Your task to perform on an android device: Go to Amazon Image 0: 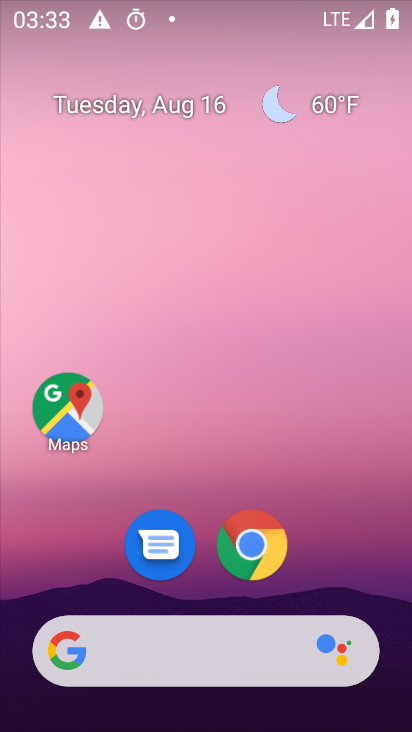
Step 0: drag from (125, 616) to (148, 267)
Your task to perform on an android device: Go to Amazon Image 1: 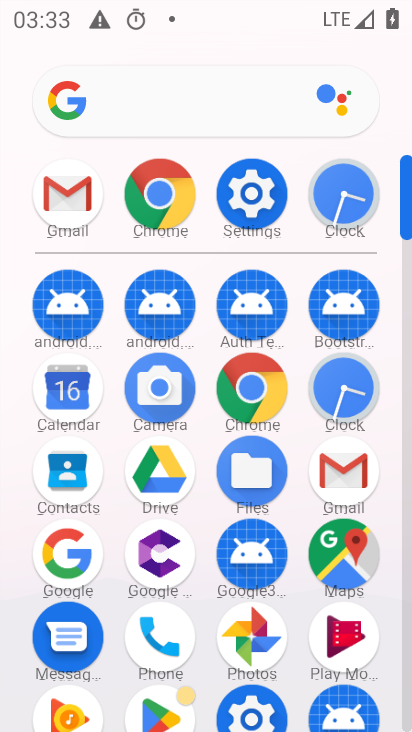
Step 1: click (60, 555)
Your task to perform on an android device: Go to Amazon Image 2: 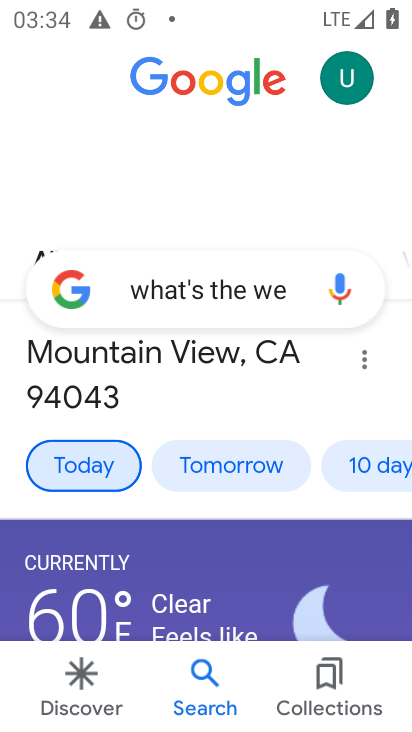
Step 2: click (205, 290)
Your task to perform on an android device: Go to Amazon Image 3: 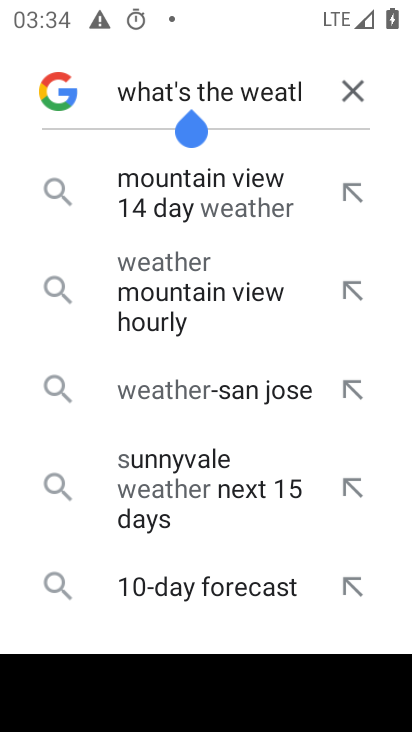
Step 3: click (348, 91)
Your task to perform on an android device: Go to Amazon Image 4: 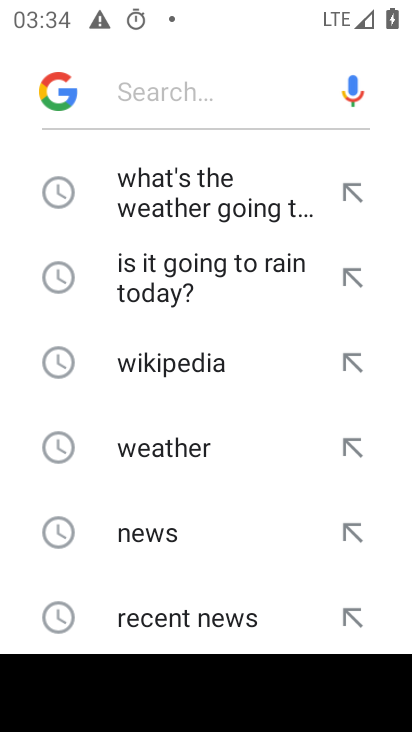
Step 4: drag from (153, 631) to (151, 322)
Your task to perform on an android device: Go to Amazon Image 5: 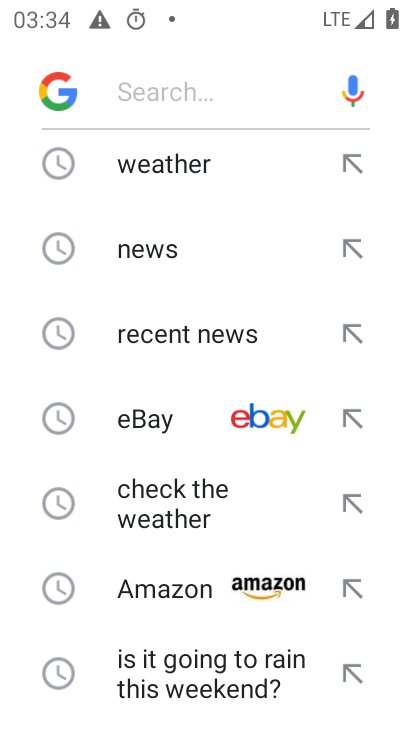
Step 5: click (158, 595)
Your task to perform on an android device: Go to Amazon Image 6: 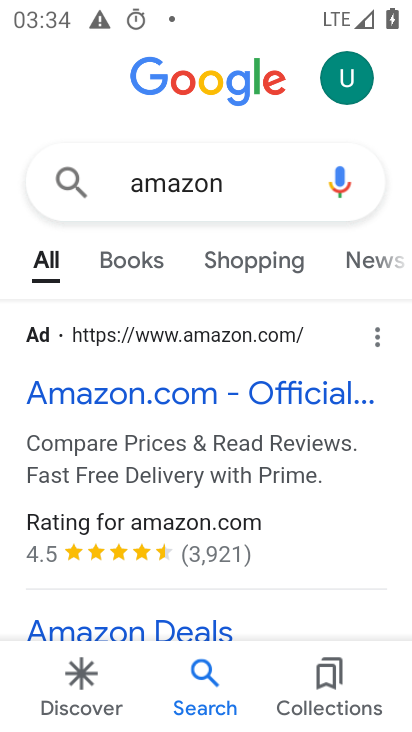
Step 6: click (130, 396)
Your task to perform on an android device: Go to Amazon Image 7: 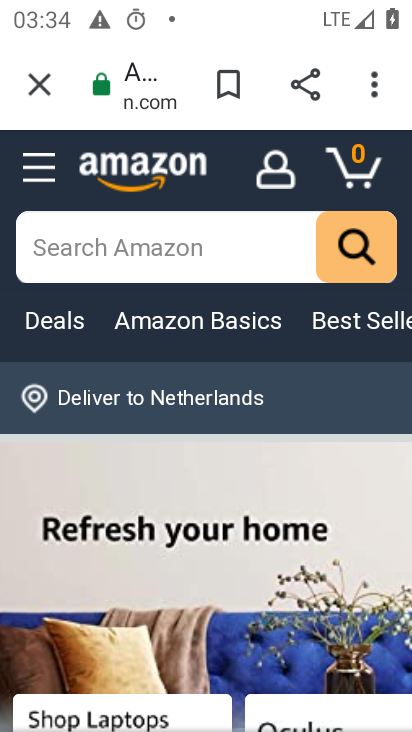
Step 7: task complete